Your task to perform on an android device: delete a single message in the gmail app Image 0: 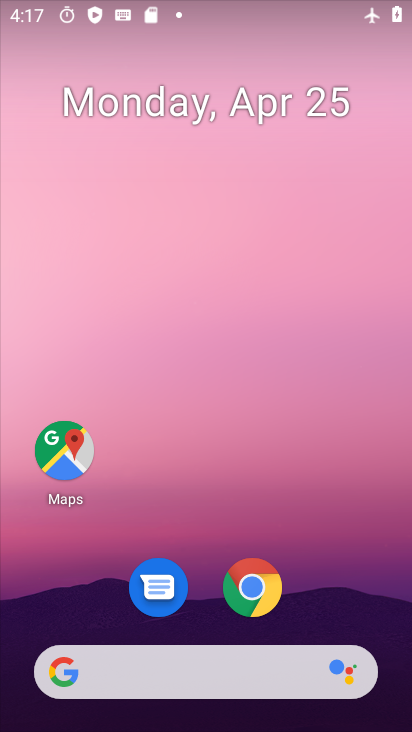
Step 0: drag from (349, 557) to (329, 108)
Your task to perform on an android device: delete a single message in the gmail app Image 1: 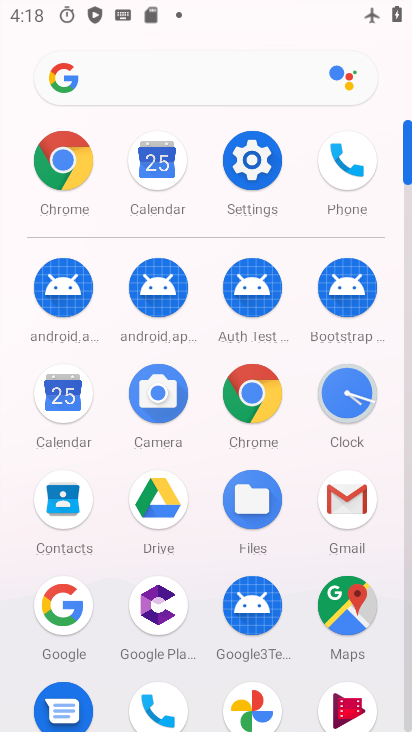
Step 1: click (339, 498)
Your task to perform on an android device: delete a single message in the gmail app Image 2: 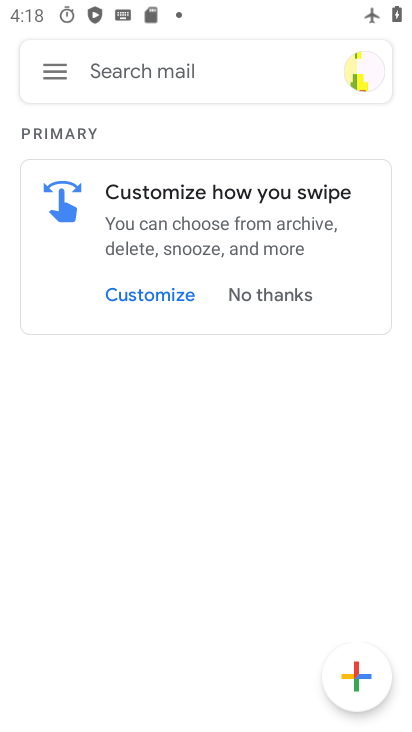
Step 2: click (47, 66)
Your task to perform on an android device: delete a single message in the gmail app Image 3: 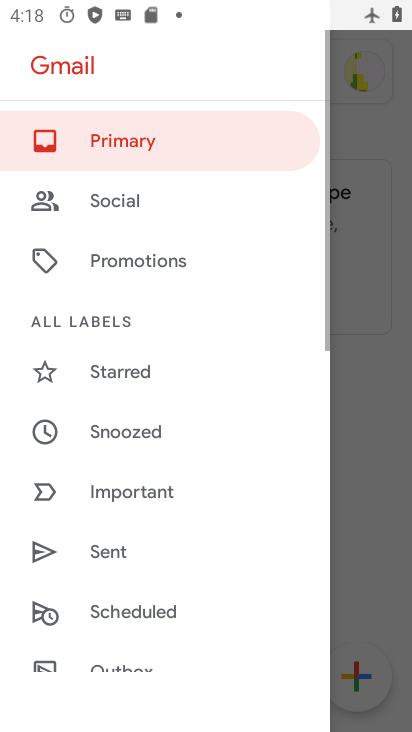
Step 3: drag from (149, 527) to (231, 91)
Your task to perform on an android device: delete a single message in the gmail app Image 4: 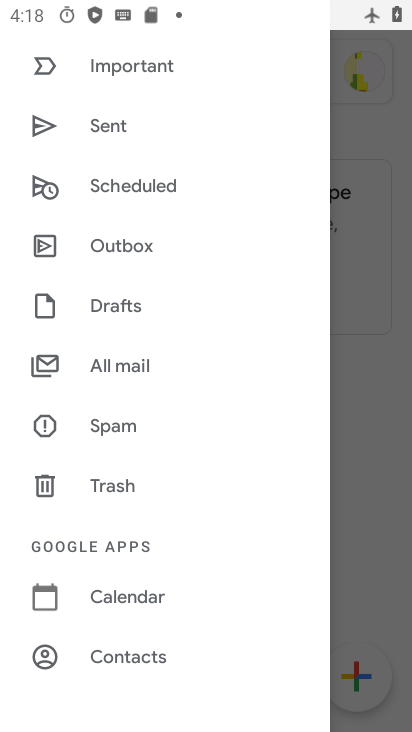
Step 4: click (142, 373)
Your task to perform on an android device: delete a single message in the gmail app Image 5: 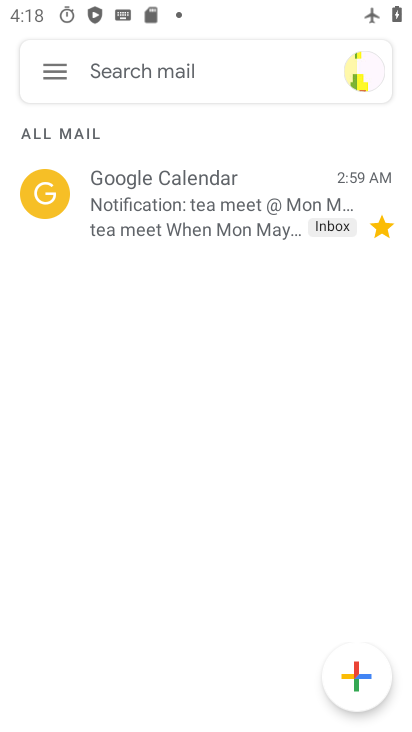
Step 5: click (298, 188)
Your task to perform on an android device: delete a single message in the gmail app Image 6: 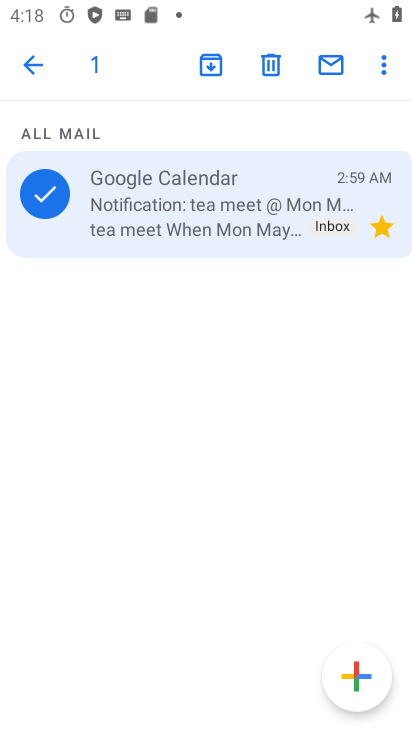
Step 6: click (400, 62)
Your task to perform on an android device: delete a single message in the gmail app Image 7: 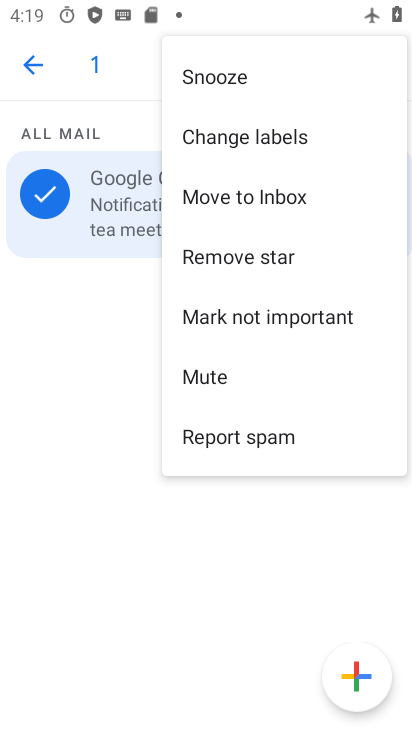
Step 7: click (101, 382)
Your task to perform on an android device: delete a single message in the gmail app Image 8: 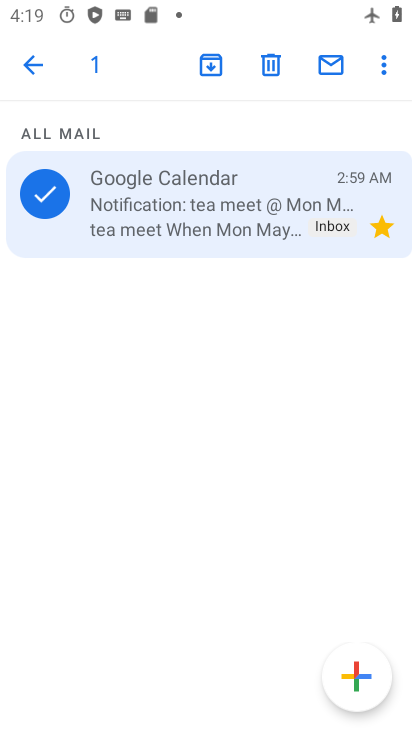
Step 8: click (279, 58)
Your task to perform on an android device: delete a single message in the gmail app Image 9: 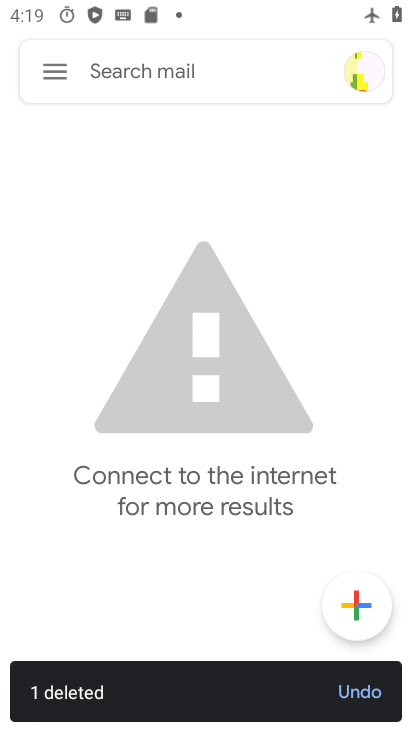
Step 9: task complete